Your task to perform on an android device: Set the phone to "Do not disturb". Image 0: 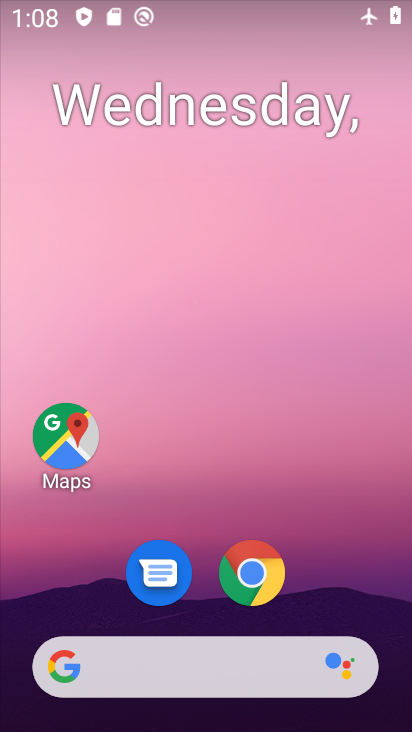
Step 0: drag from (210, 609) to (402, 417)
Your task to perform on an android device: Set the phone to "Do not disturb". Image 1: 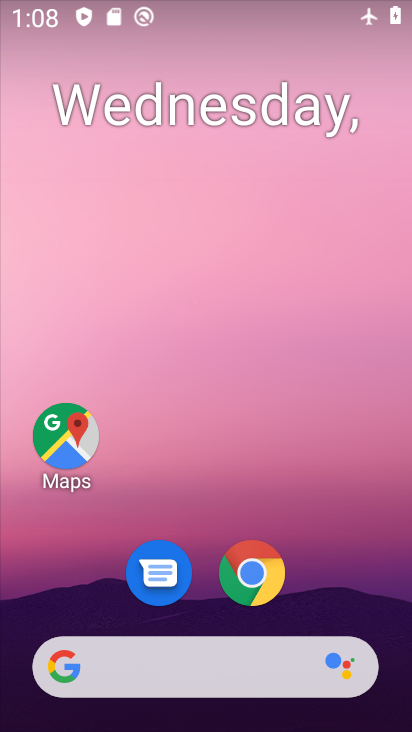
Step 1: click (346, 238)
Your task to perform on an android device: Set the phone to "Do not disturb". Image 2: 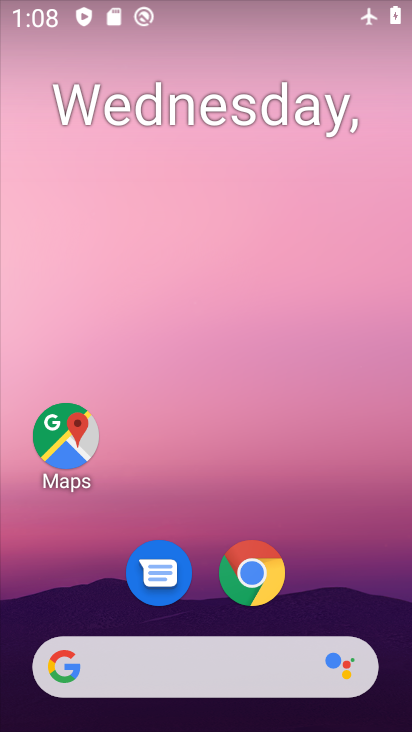
Step 2: drag from (201, 536) to (320, 13)
Your task to perform on an android device: Set the phone to "Do not disturb". Image 3: 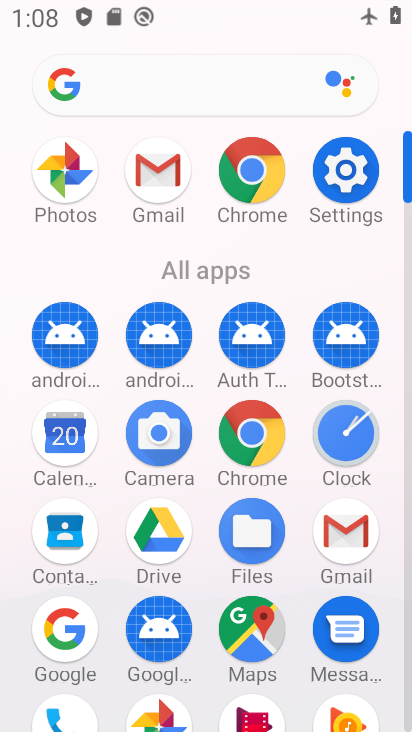
Step 3: click (362, 201)
Your task to perform on an android device: Set the phone to "Do not disturb". Image 4: 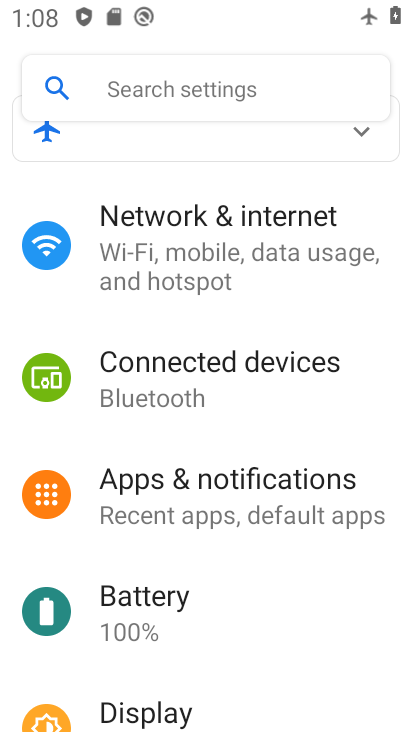
Step 4: drag from (152, 583) to (273, 11)
Your task to perform on an android device: Set the phone to "Do not disturb". Image 5: 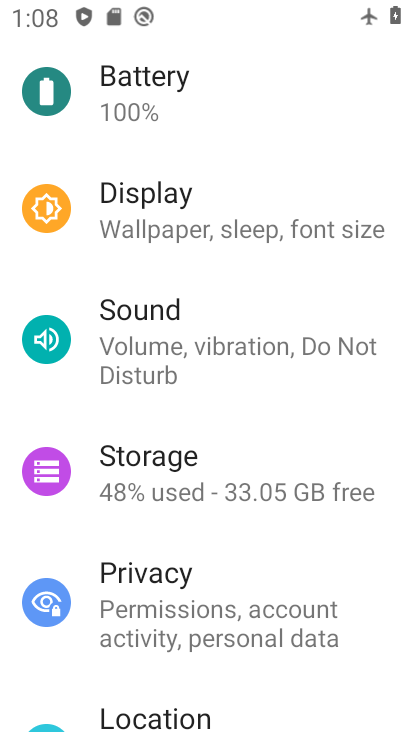
Step 5: click (160, 328)
Your task to perform on an android device: Set the phone to "Do not disturb". Image 6: 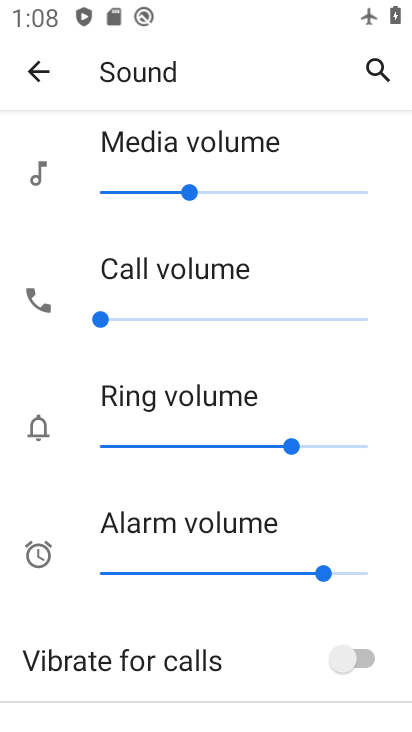
Step 6: drag from (187, 631) to (323, 202)
Your task to perform on an android device: Set the phone to "Do not disturb". Image 7: 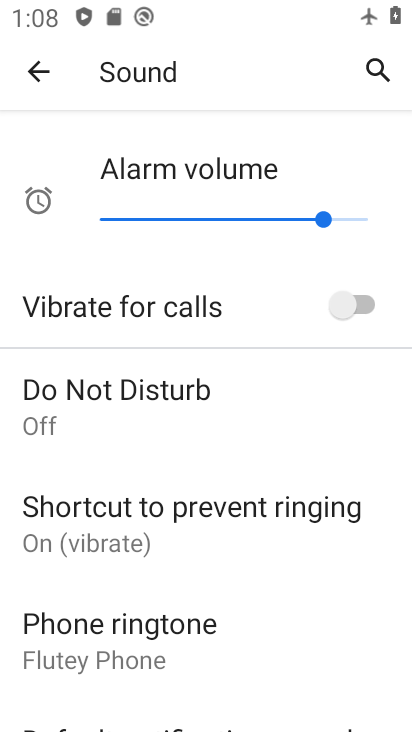
Step 7: click (129, 414)
Your task to perform on an android device: Set the phone to "Do not disturb". Image 8: 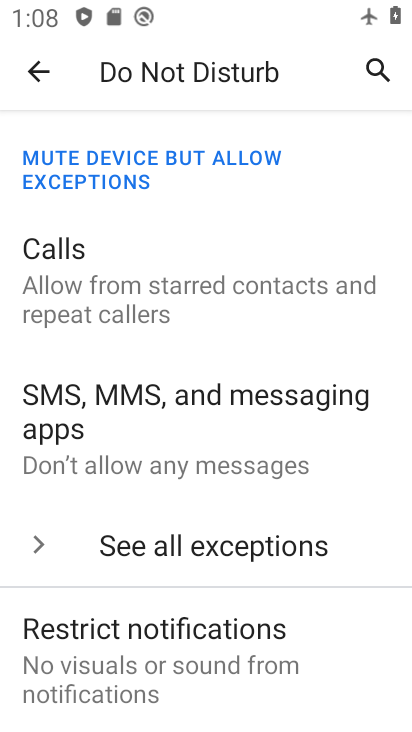
Step 8: drag from (172, 615) to (252, 75)
Your task to perform on an android device: Set the phone to "Do not disturb". Image 9: 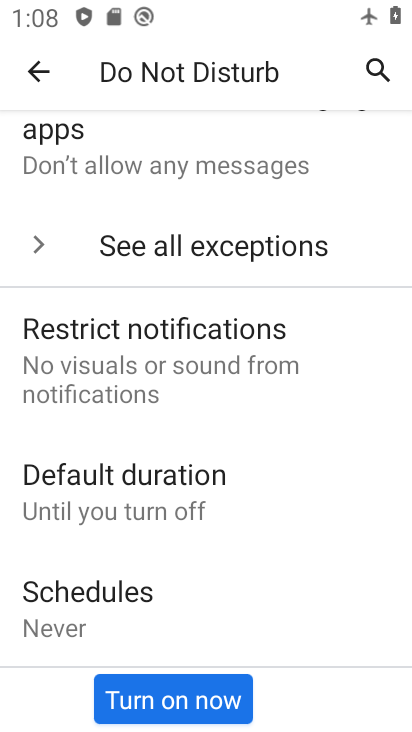
Step 9: click (180, 699)
Your task to perform on an android device: Set the phone to "Do not disturb". Image 10: 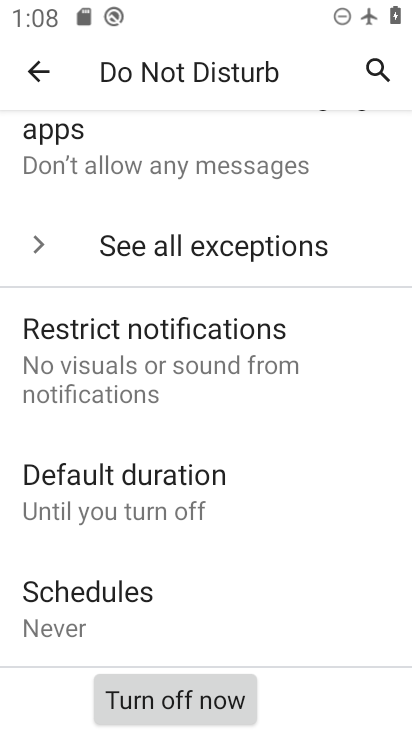
Step 10: task complete